Your task to perform on an android device: Add razer huntsman to the cart on target Image 0: 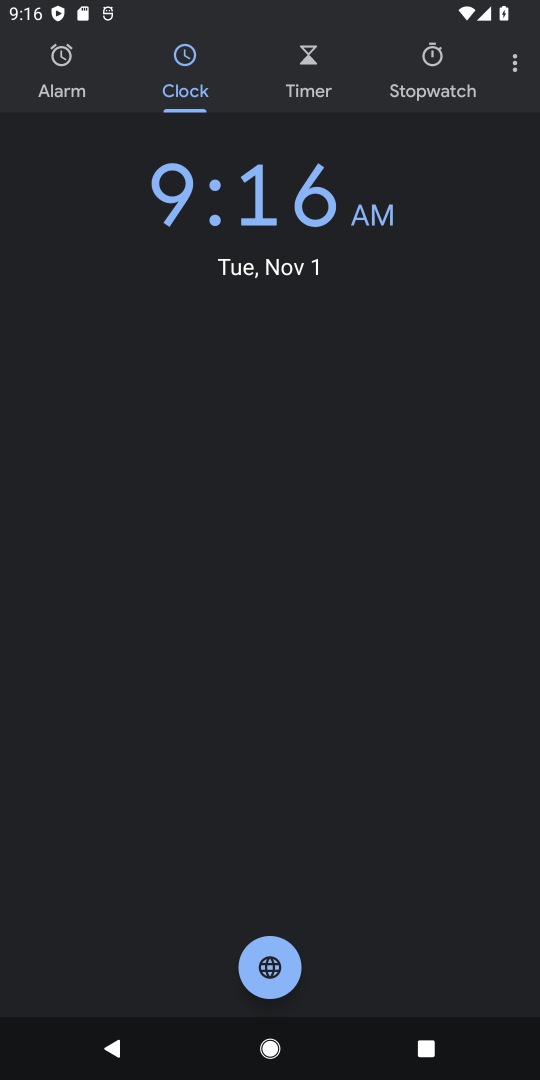
Step 0: press home button
Your task to perform on an android device: Add razer huntsman to the cart on target Image 1: 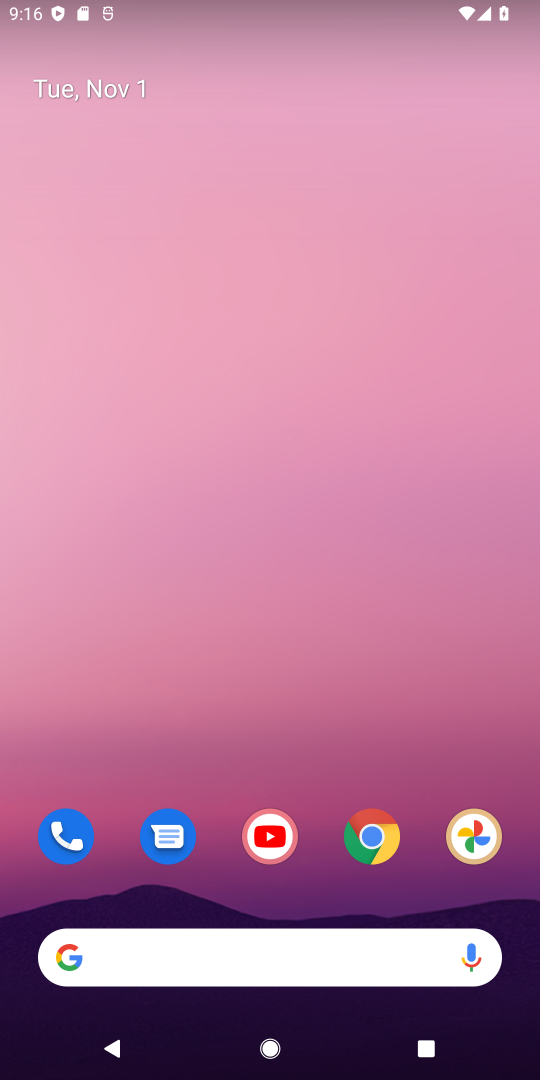
Step 1: click (383, 835)
Your task to perform on an android device: Add razer huntsman to the cart on target Image 2: 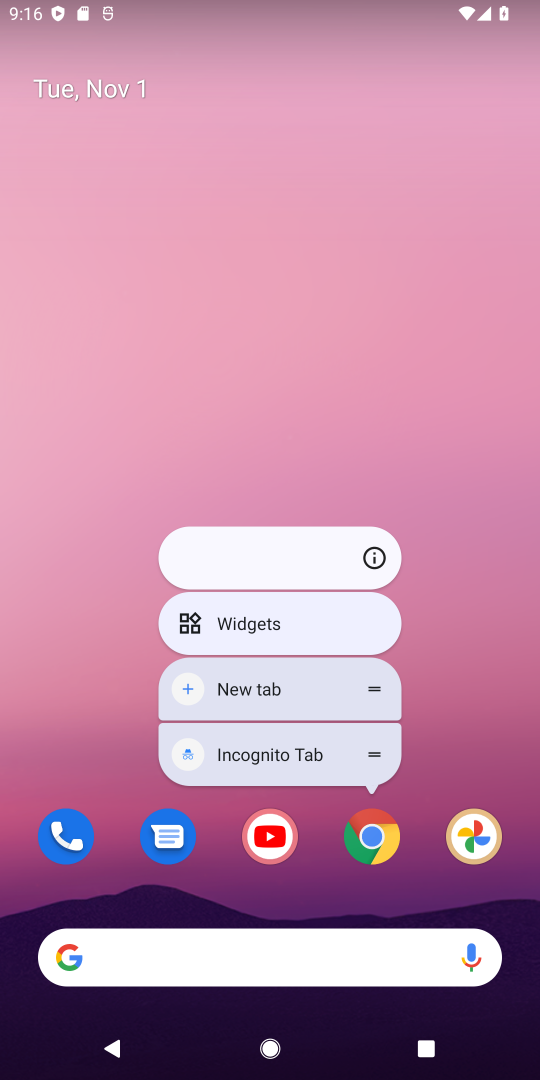
Step 2: click (376, 844)
Your task to perform on an android device: Add razer huntsman to the cart on target Image 3: 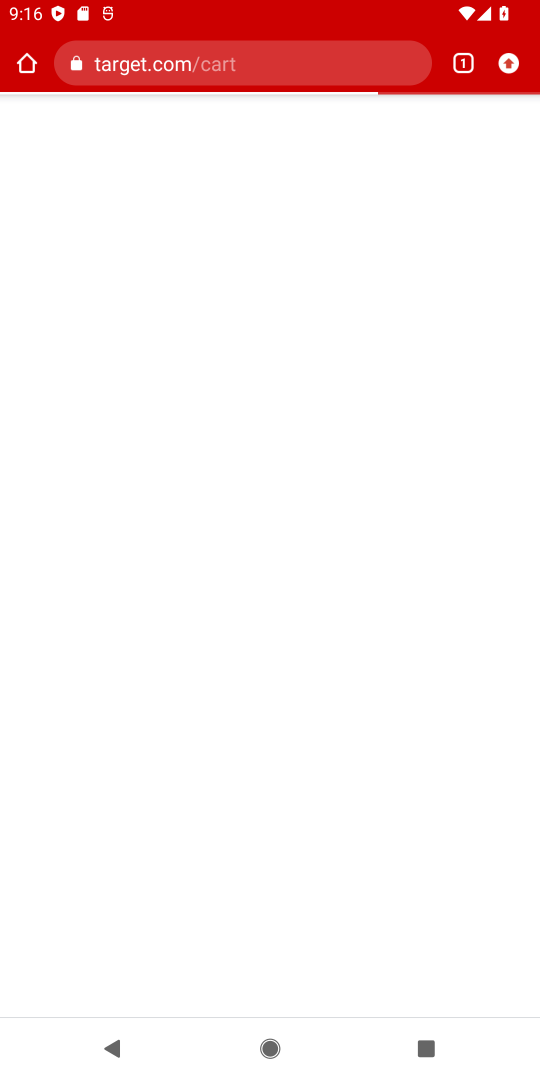
Step 3: click (275, 67)
Your task to perform on an android device: Add razer huntsman to the cart on target Image 4: 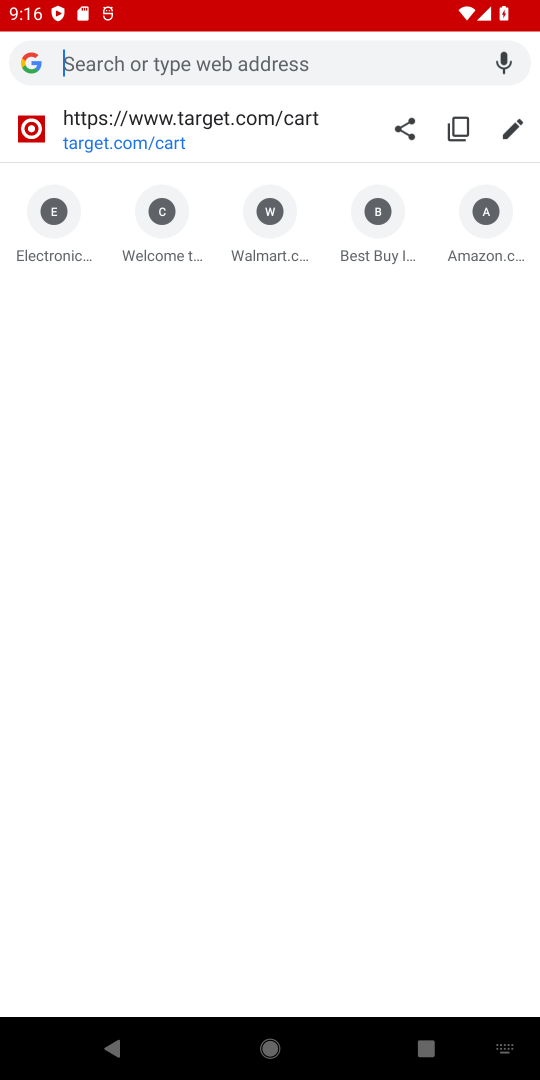
Step 4: click (155, 101)
Your task to perform on an android device: Add razer huntsman to the cart on target Image 5: 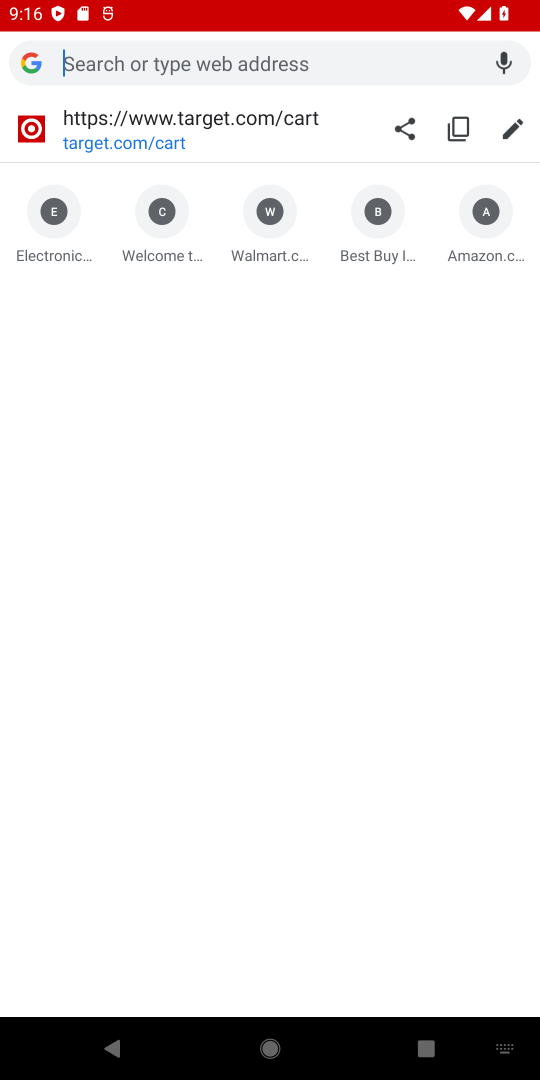
Step 5: click (155, 115)
Your task to perform on an android device: Add razer huntsman to the cart on target Image 6: 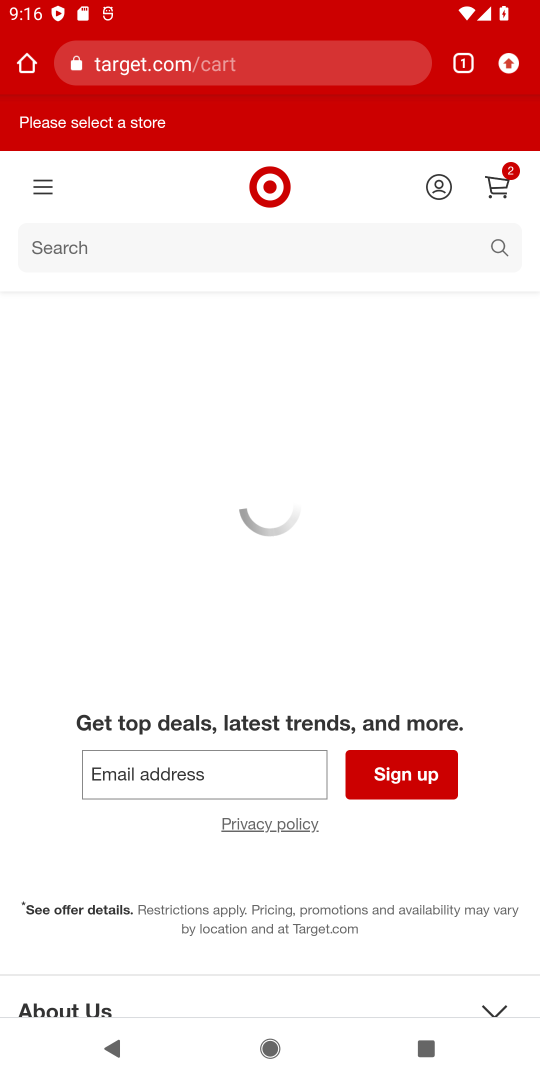
Step 6: click (194, 257)
Your task to perform on an android device: Add razer huntsman to the cart on target Image 7: 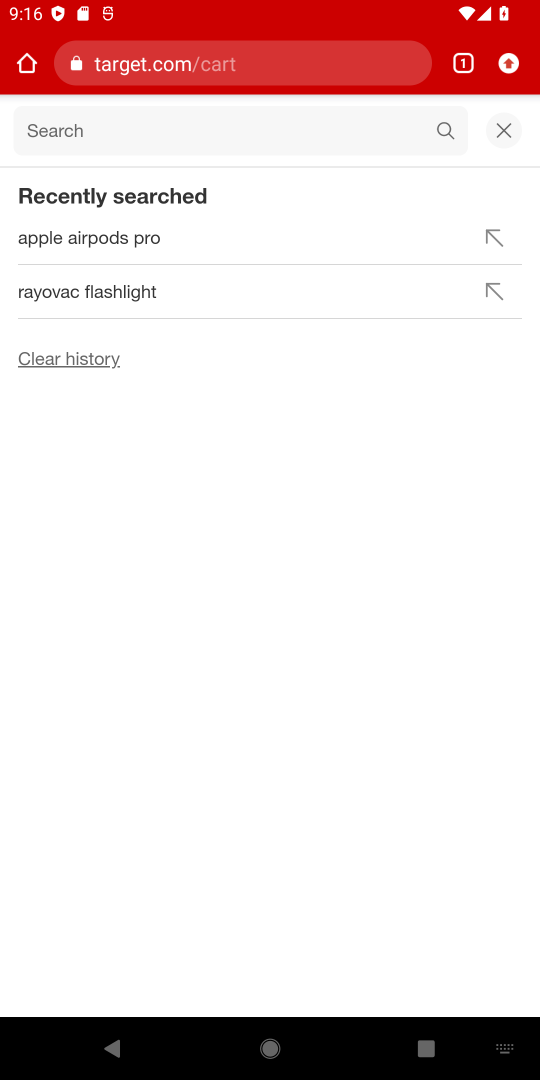
Step 7: type "razer huntsman"
Your task to perform on an android device: Add razer huntsman to the cart on target Image 8: 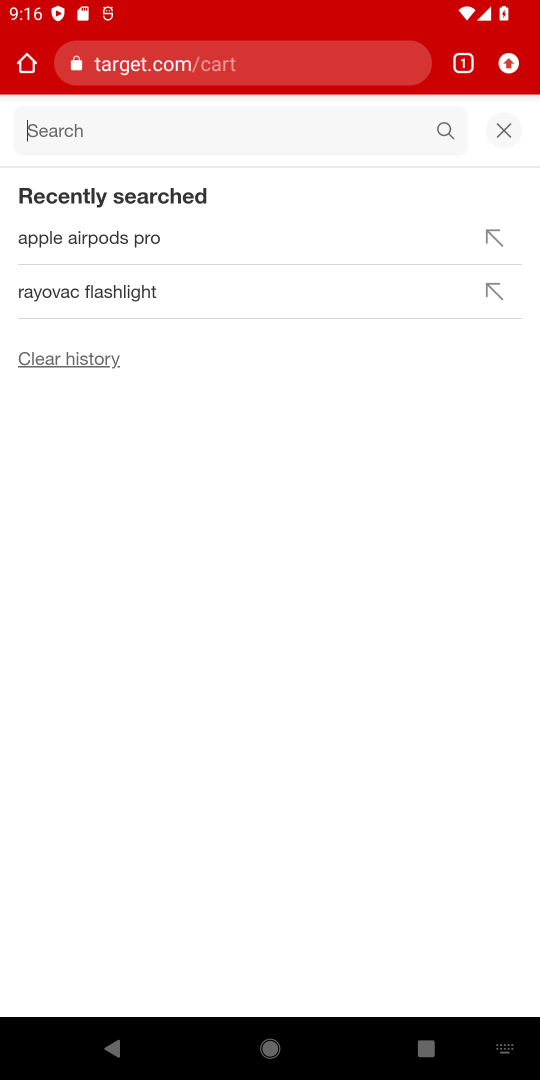
Step 8: type ""
Your task to perform on an android device: Add razer huntsman to the cart on target Image 9: 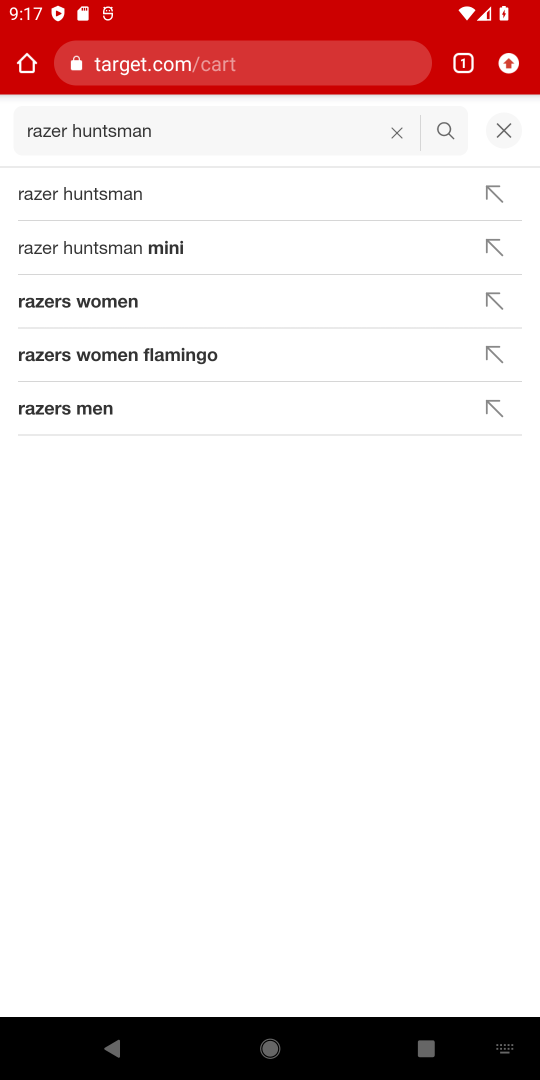
Step 9: click (130, 190)
Your task to perform on an android device: Add razer huntsman to the cart on target Image 10: 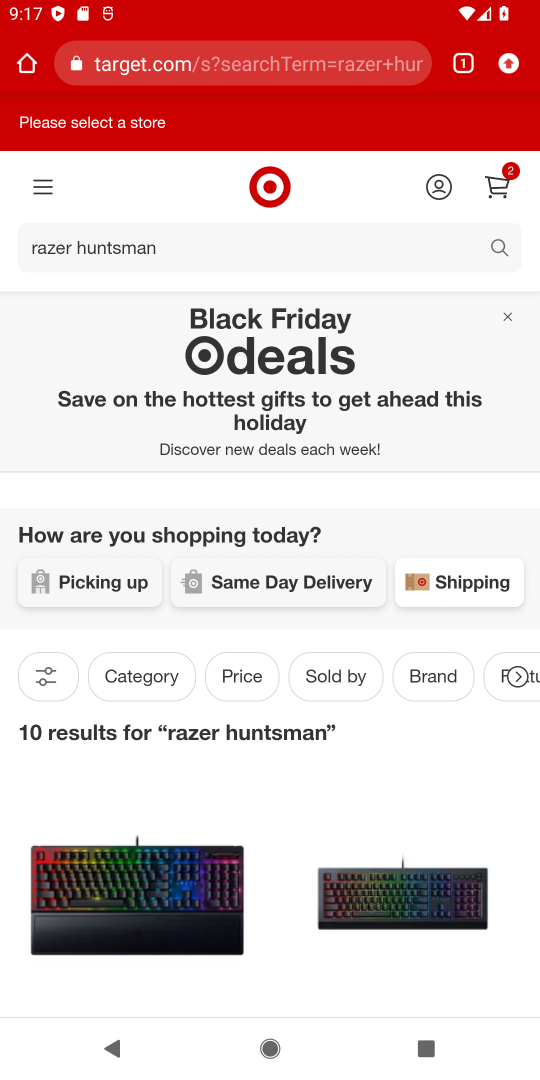
Step 10: drag from (276, 812) to (346, 396)
Your task to perform on an android device: Add razer huntsman to the cart on target Image 11: 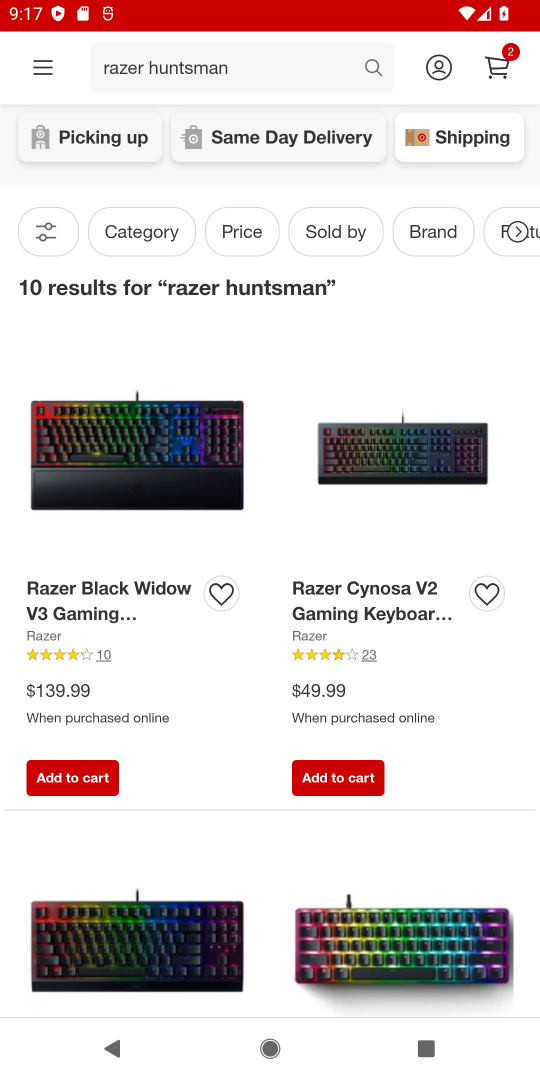
Step 11: click (88, 780)
Your task to perform on an android device: Add razer huntsman to the cart on target Image 12: 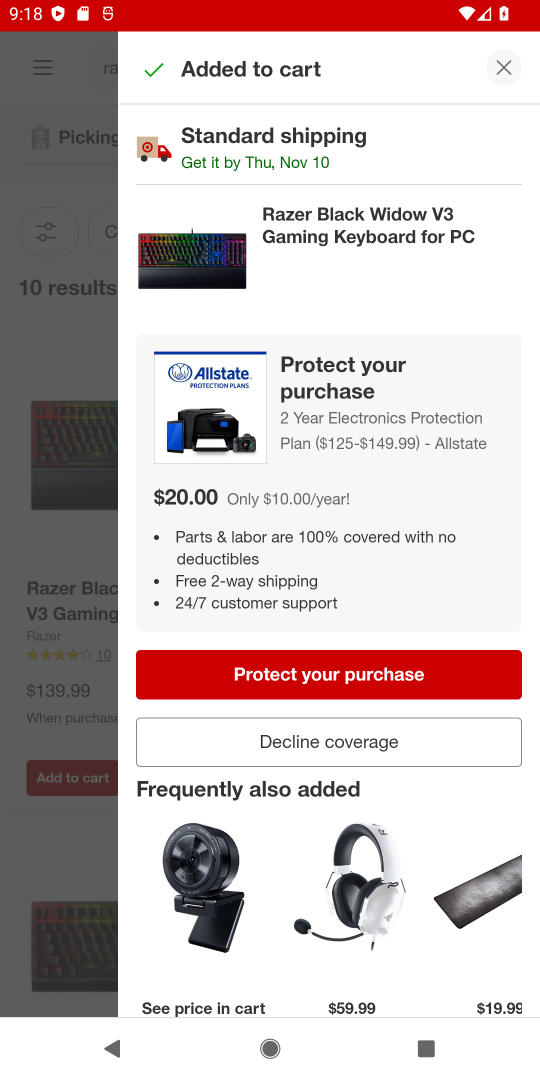
Step 12: click (321, 755)
Your task to perform on an android device: Add razer huntsman to the cart on target Image 13: 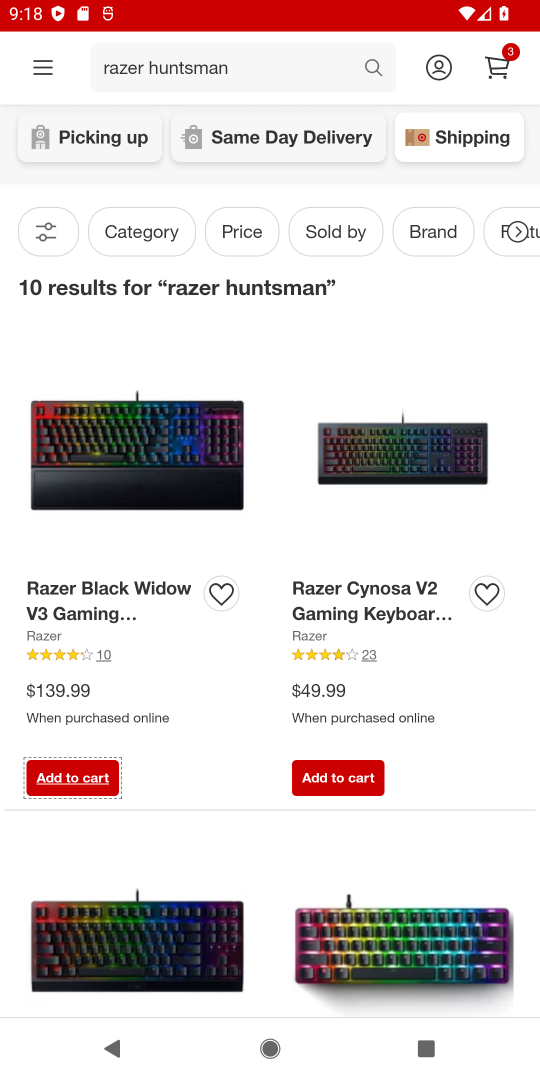
Step 13: task complete